Your task to perform on an android device: turn notification dots on Image 0: 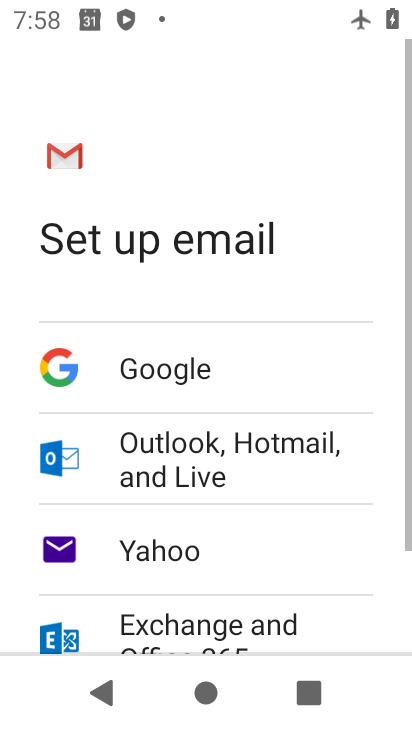
Step 0: press home button
Your task to perform on an android device: turn notification dots on Image 1: 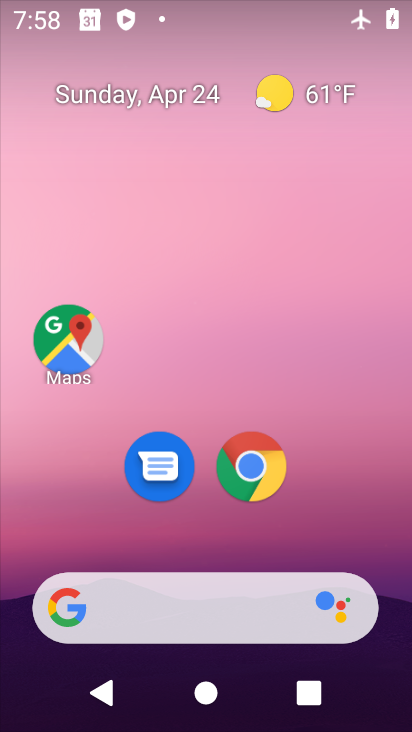
Step 1: drag from (204, 532) to (223, 13)
Your task to perform on an android device: turn notification dots on Image 2: 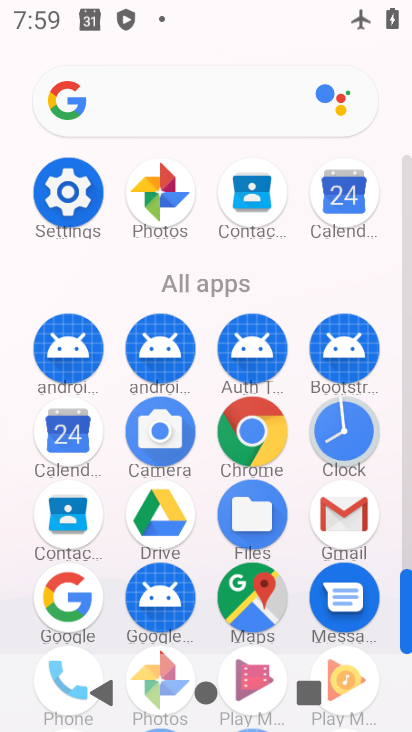
Step 2: click (83, 195)
Your task to perform on an android device: turn notification dots on Image 3: 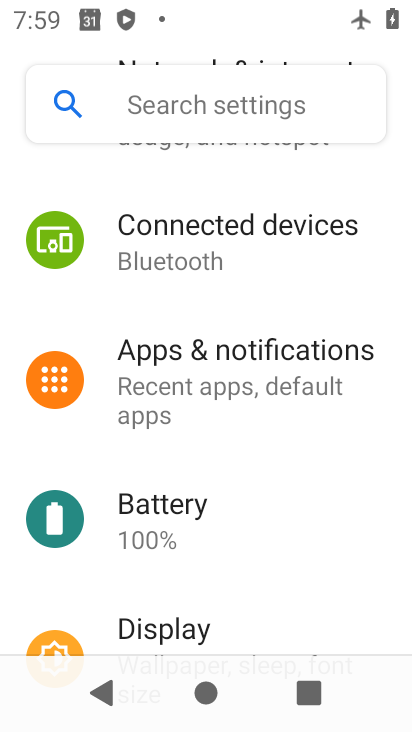
Step 3: click (279, 394)
Your task to perform on an android device: turn notification dots on Image 4: 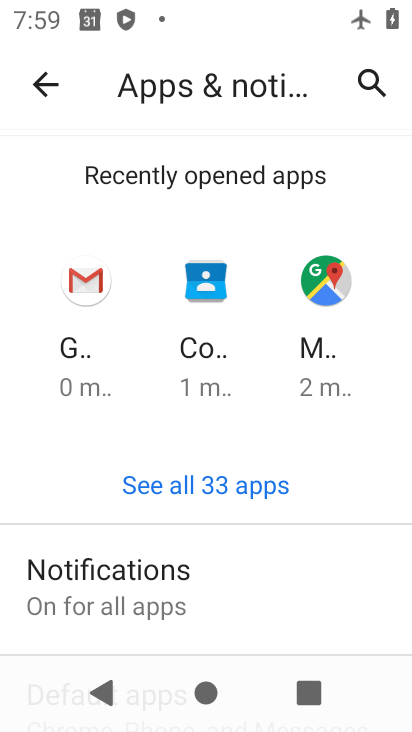
Step 4: drag from (198, 582) to (217, 193)
Your task to perform on an android device: turn notification dots on Image 5: 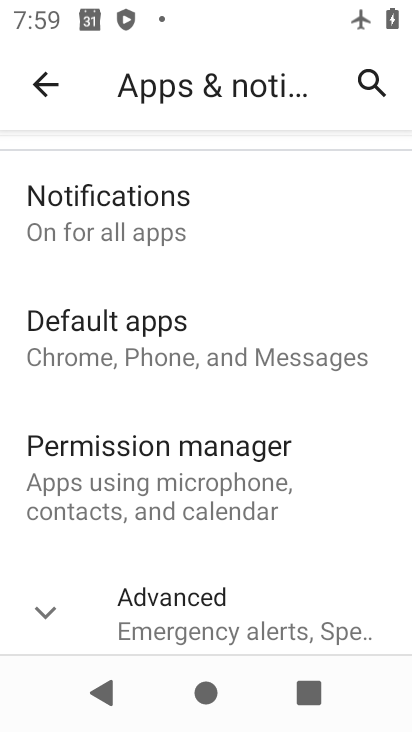
Step 5: click (149, 239)
Your task to perform on an android device: turn notification dots on Image 6: 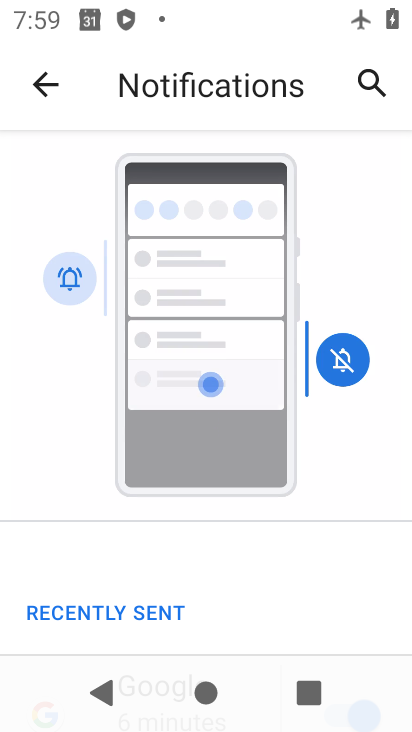
Step 6: drag from (176, 464) to (232, 100)
Your task to perform on an android device: turn notification dots on Image 7: 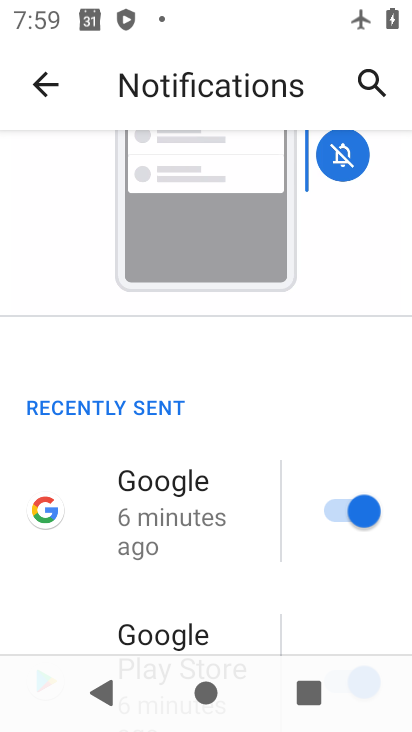
Step 7: drag from (213, 552) to (235, 132)
Your task to perform on an android device: turn notification dots on Image 8: 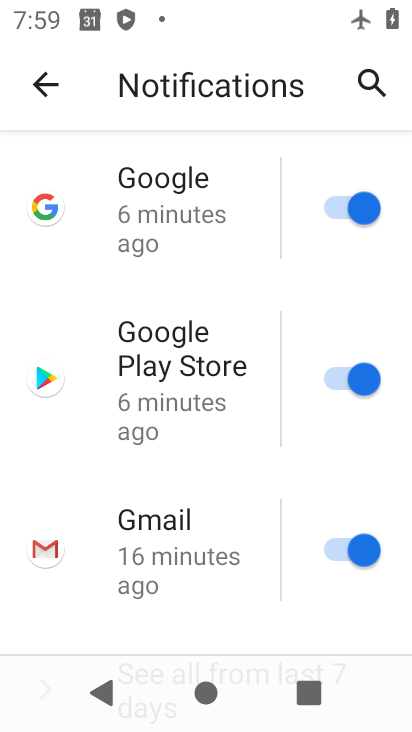
Step 8: drag from (174, 493) to (281, 12)
Your task to perform on an android device: turn notification dots on Image 9: 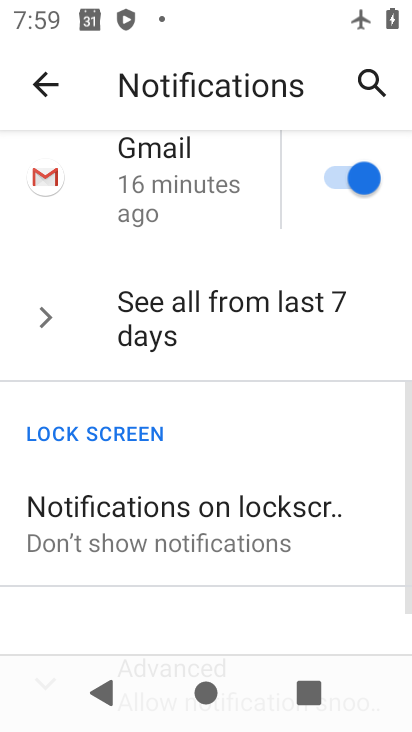
Step 9: drag from (170, 558) to (214, 144)
Your task to perform on an android device: turn notification dots on Image 10: 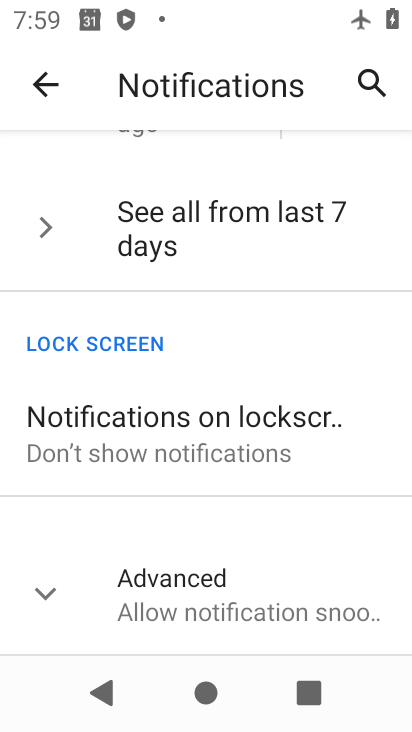
Step 10: click (167, 588)
Your task to perform on an android device: turn notification dots on Image 11: 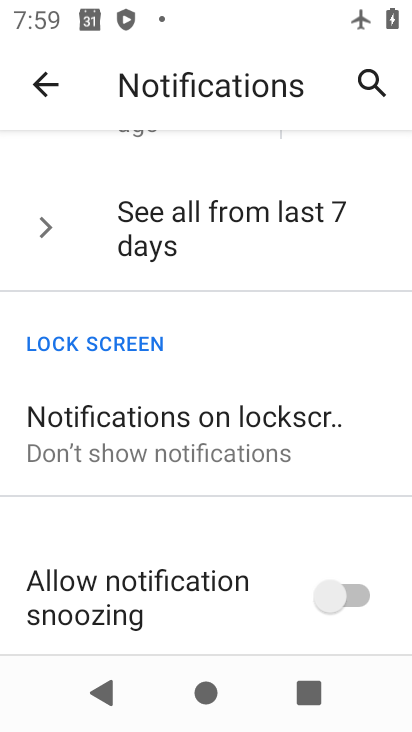
Step 11: drag from (194, 563) to (237, 260)
Your task to perform on an android device: turn notification dots on Image 12: 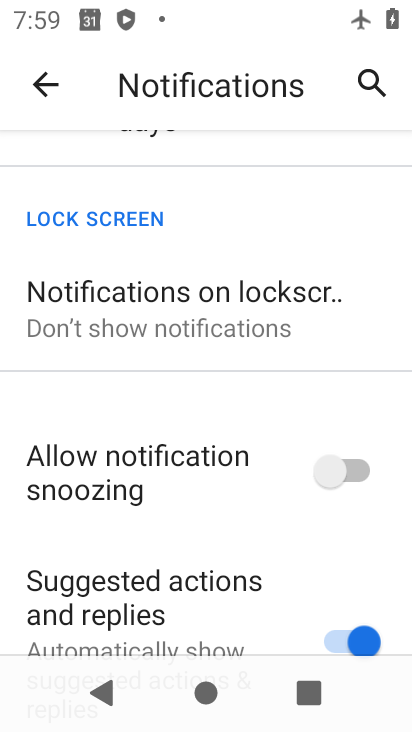
Step 12: drag from (223, 562) to (296, 97)
Your task to perform on an android device: turn notification dots on Image 13: 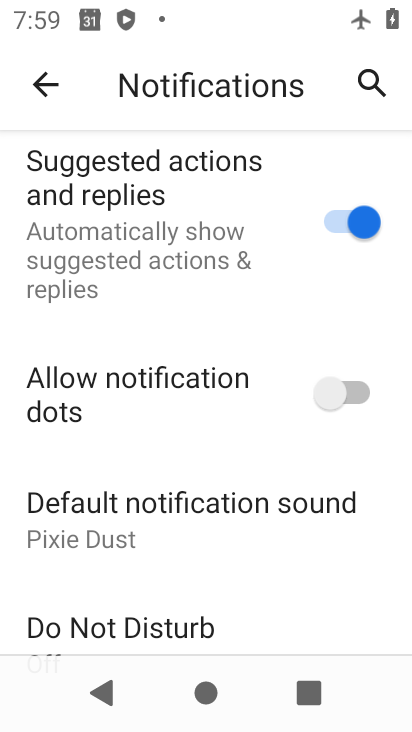
Step 13: click (334, 383)
Your task to perform on an android device: turn notification dots on Image 14: 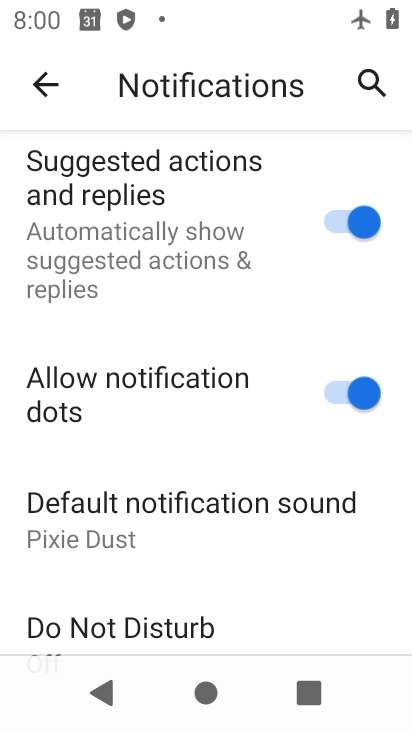
Step 14: task complete